Your task to perform on an android device: Play the last video I watched on Youtube Image 0: 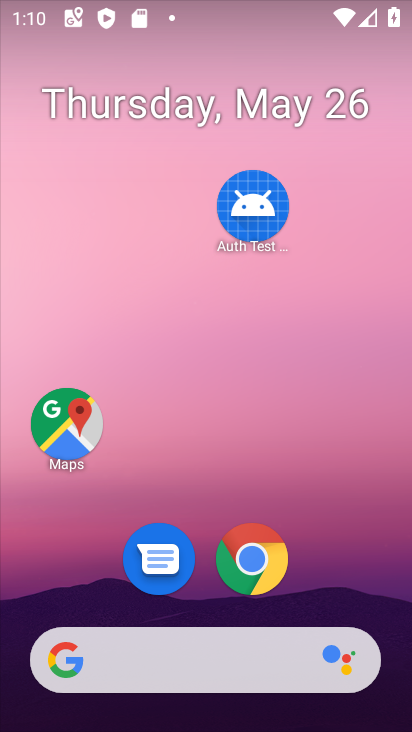
Step 0: drag from (357, 629) to (309, 52)
Your task to perform on an android device: Play the last video I watched on Youtube Image 1: 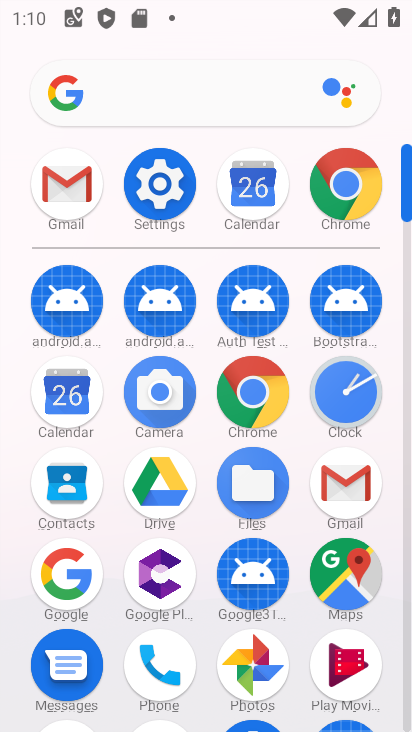
Step 1: drag from (202, 252) to (198, 33)
Your task to perform on an android device: Play the last video I watched on Youtube Image 2: 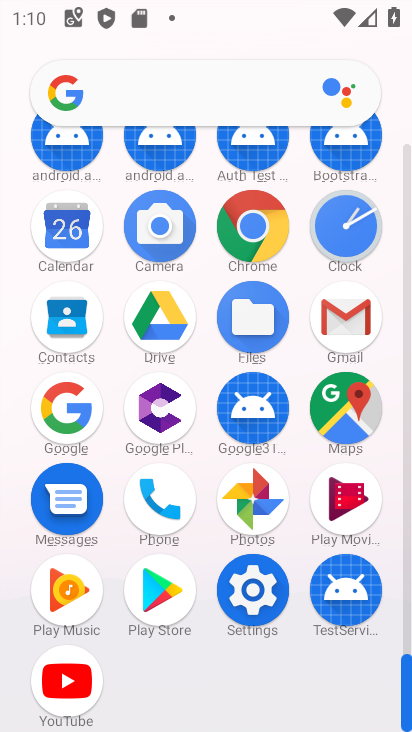
Step 2: click (78, 688)
Your task to perform on an android device: Play the last video I watched on Youtube Image 3: 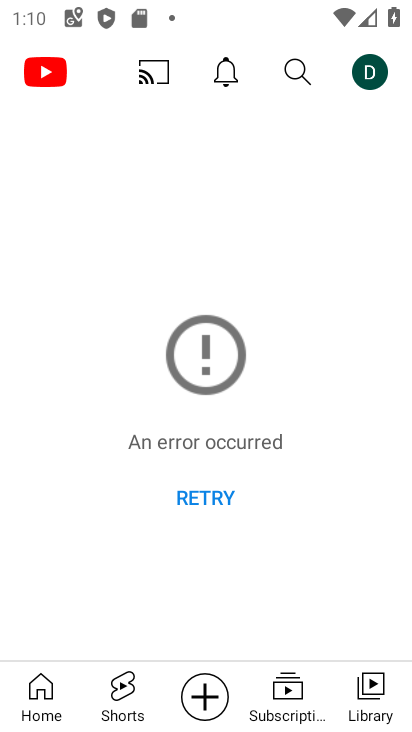
Step 3: click (374, 677)
Your task to perform on an android device: Play the last video I watched on Youtube Image 4: 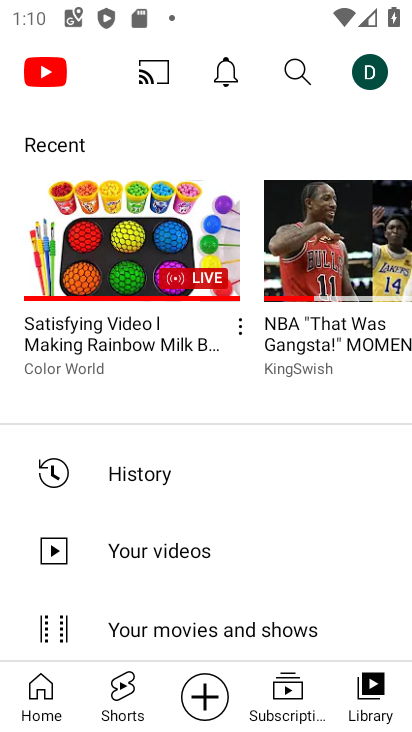
Step 4: click (142, 469)
Your task to perform on an android device: Play the last video I watched on Youtube Image 5: 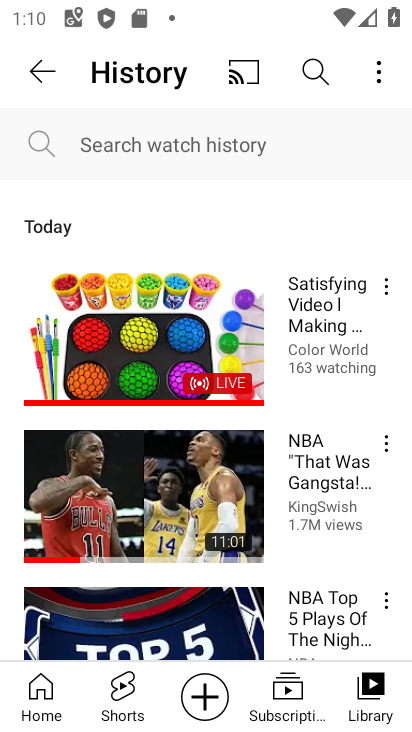
Step 5: click (192, 323)
Your task to perform on an android device: Play the last video I watched on Youtube Image 6: 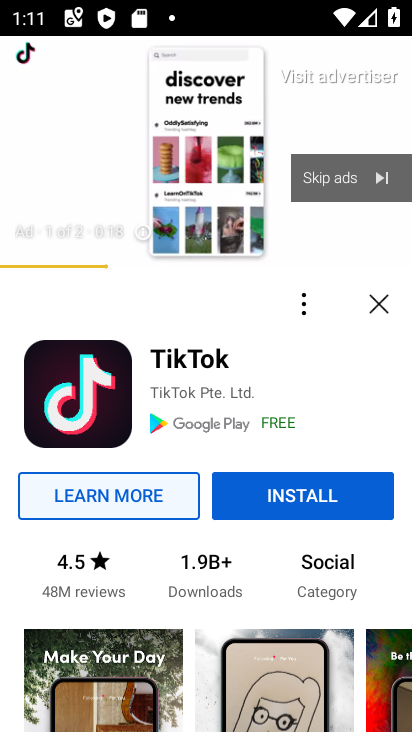
Step 6: click (389, 300)
Your task to perform on an android device: Play the last video I watched on Youtube Image 7: 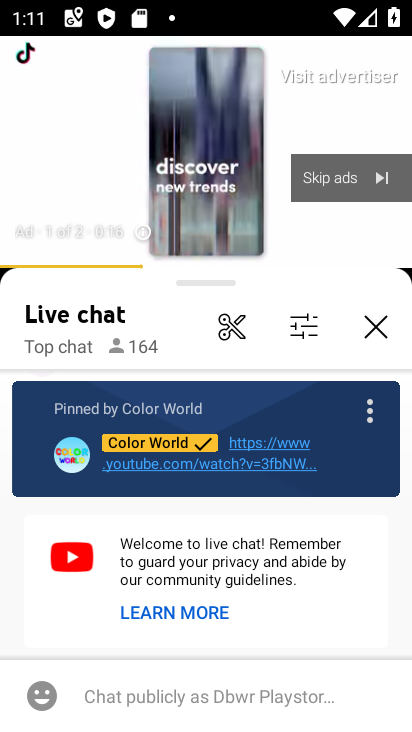
Step 7: drag from (293, 576) to (272, 201)
Your task to perform on an android device: Play the last video I watched on Youtube Image 8: 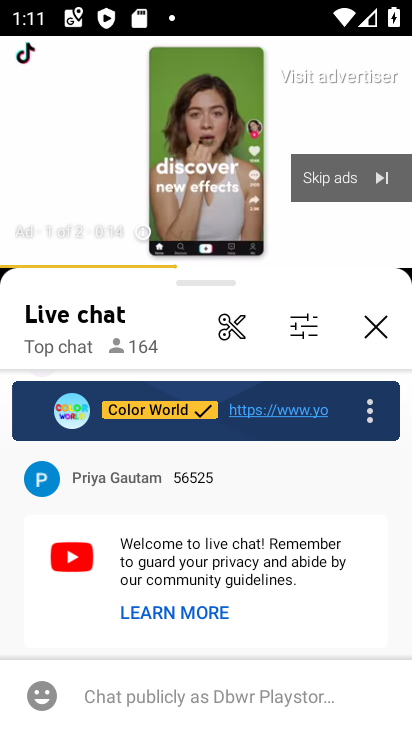
Step 8: click (379, 325)
Your task to perform on an android device: Play the last video I watched on Youtube Image 9: 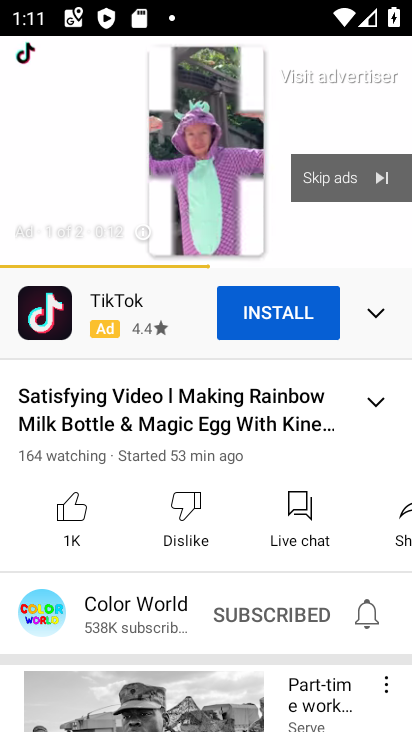
Step 9: drag from (332, 683) to (341, 318)
Your task to perform on an android device: Play the last video I watched on Youtube Image 10: 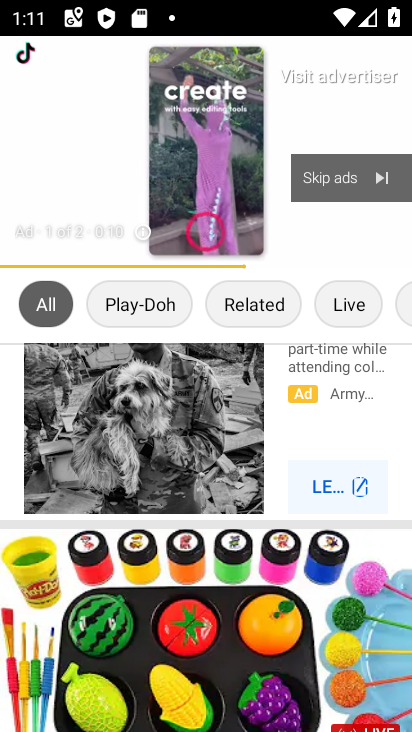
Step 10: click (353, 180)
Your task to perform on an android device: Play the last video I watched on Youtube Image 11: 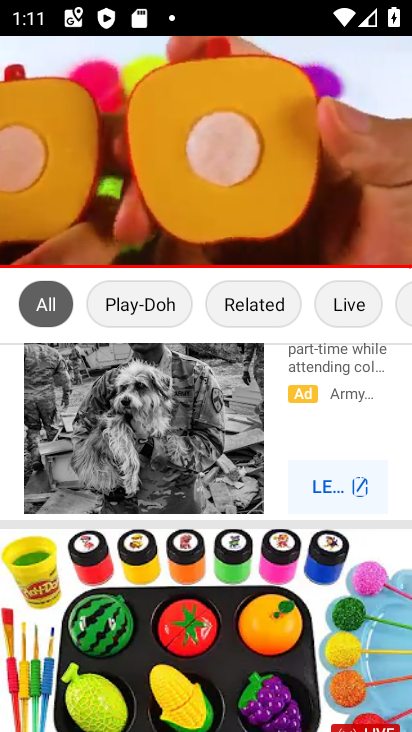
Step 11: task complete